Your task to perform on an android device: Search for asus zenbook on walmart.com, select the first entry, add it to the cart, then select checkout. Image 0: 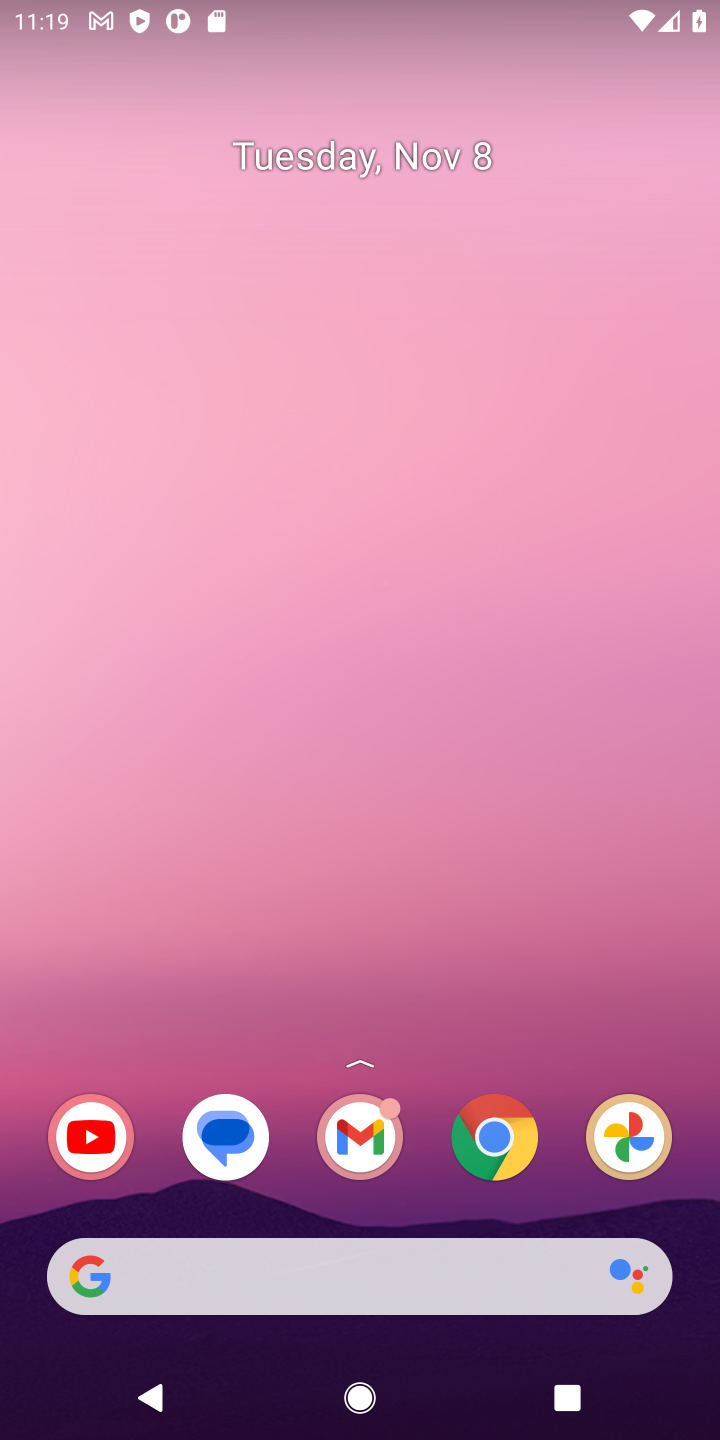
Step 0: click (501, 1143)
Your task to perform on an android device: Search for asus zenbook on walmart.com, select the first entry, add it to the cart, then select checkout. Image 1: 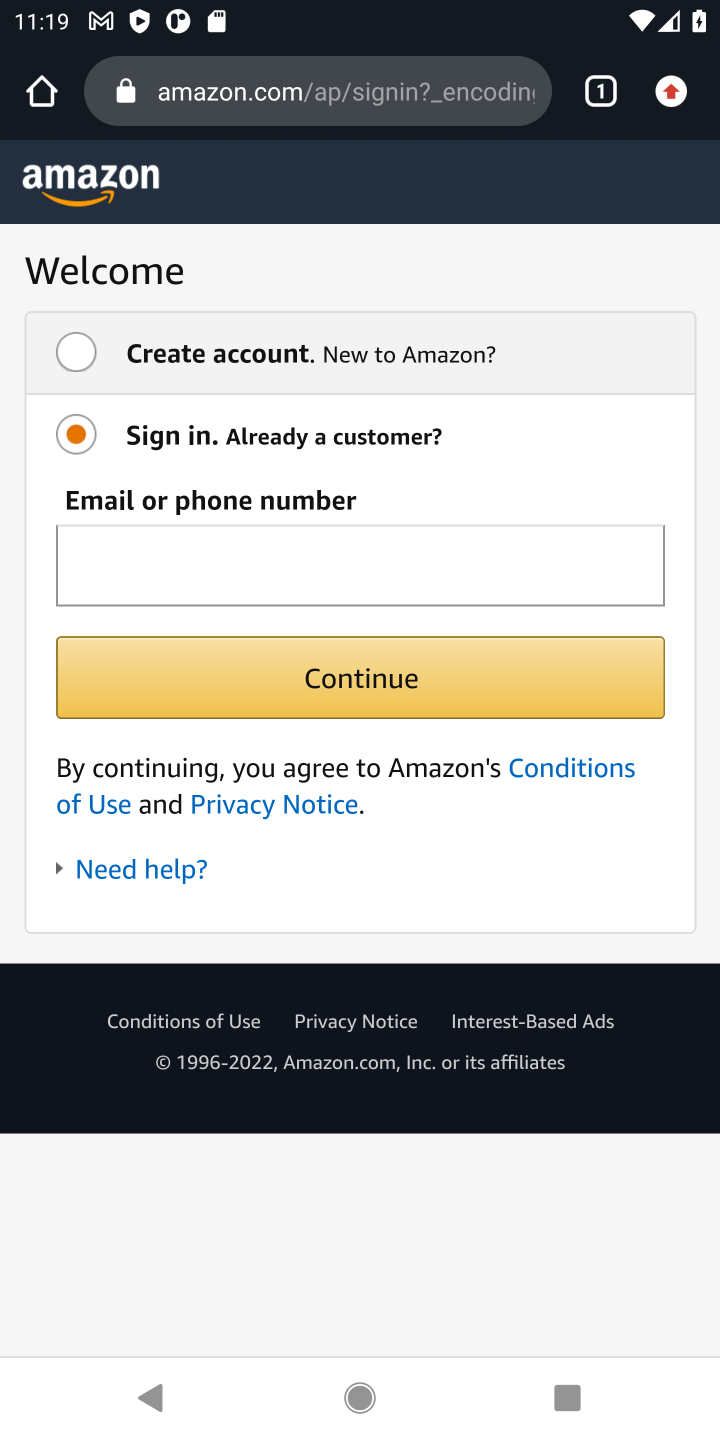
Step 1: click (401, 98)
Your task to perform on an android device: Search for asus zenbook on walmart.com, select the first entry, add it to the cart, then select checkout. Image 2: 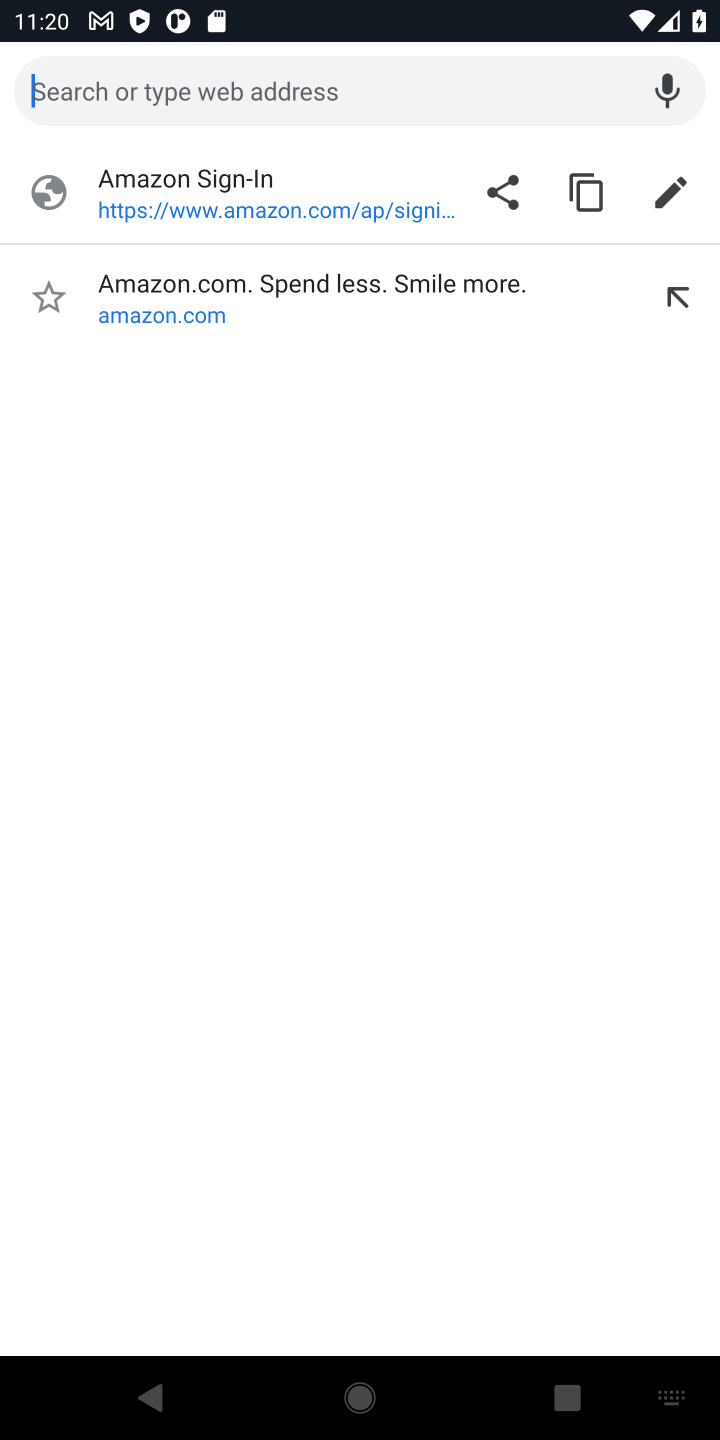
Step 2: type "walmart.com"
Your task to perform on an android device: Search for asus zenbook on walmart.com, select the first entry, add it to the cart, then select checkout. Image 3: 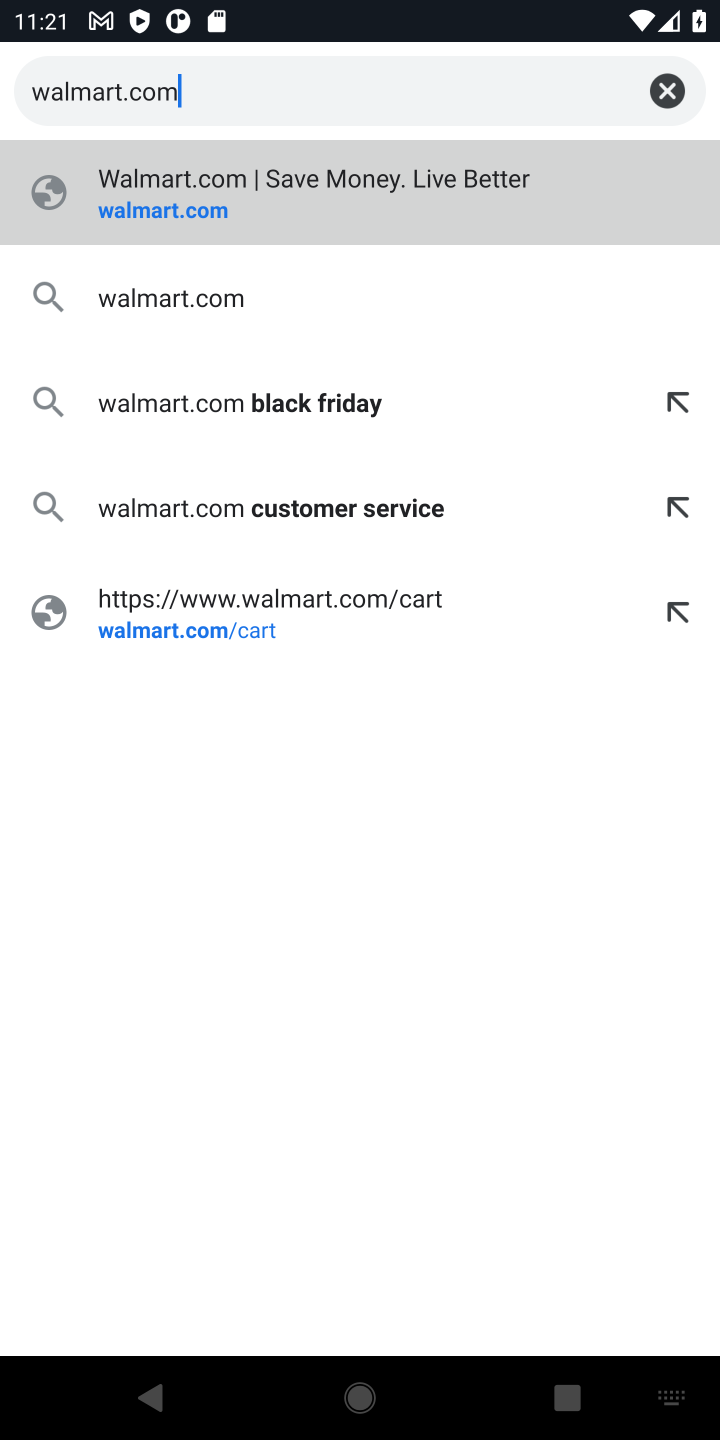
Step 3: click (196, 302)
Your task to perform on an android device: Search for asus zenbook on walmart.com, select the first entry, add it to the cart, then select checkout. Image 4: 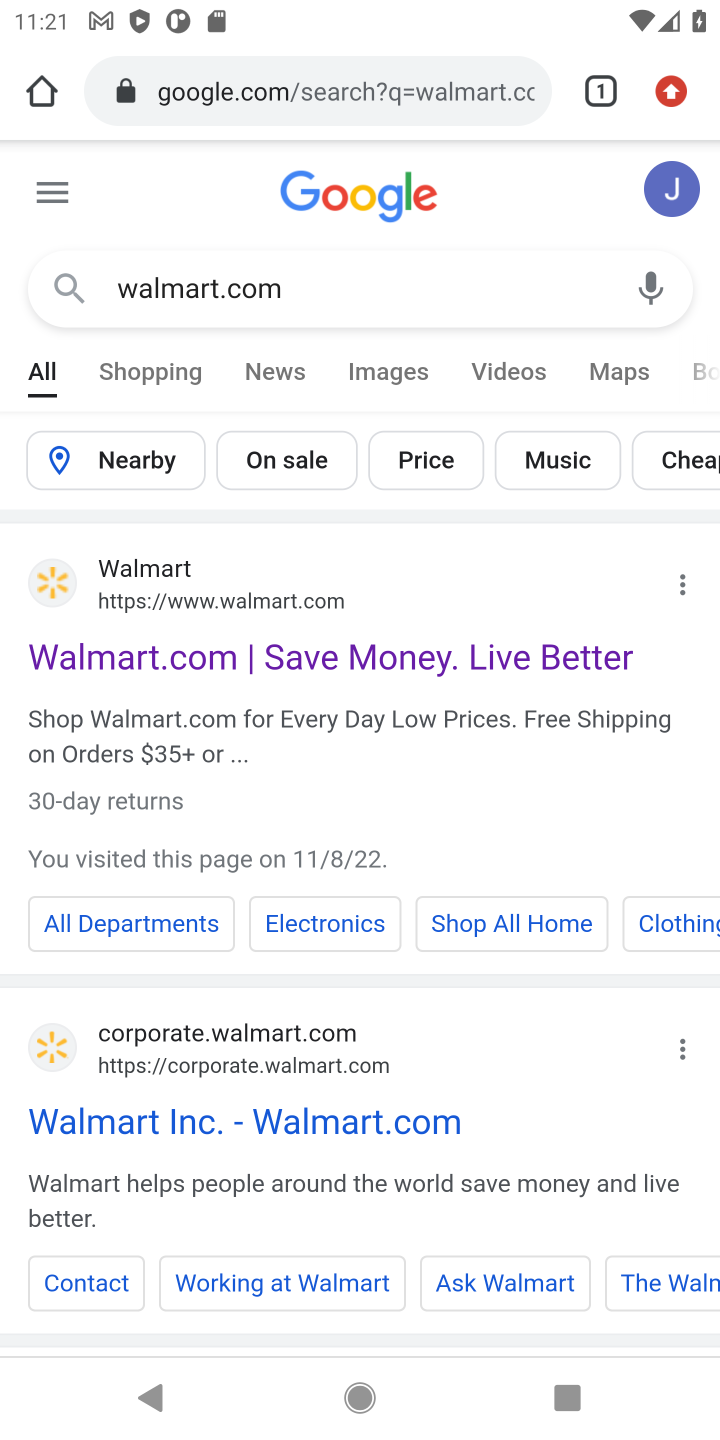
Step 4: click (179, 656)
Your task to perform on an android device: Search for asus zenbook on walmart.com, select the first entry, add it to the cart, then select checkout. Image 5: 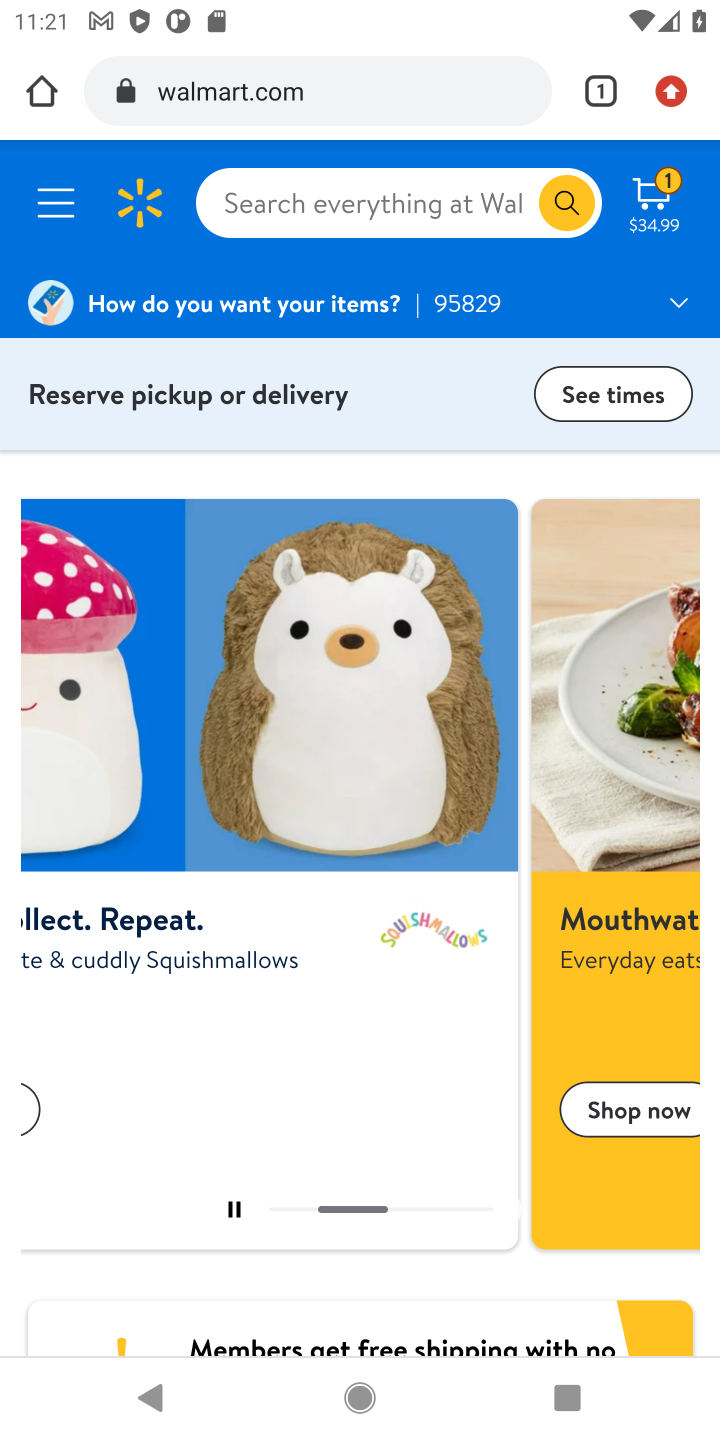
Step 5: click (400, 216)
Your task to perform on an android device: Search for asus zenbook on walmart.com, select the first entry, add it to the cart, then select checkout. Image 6: 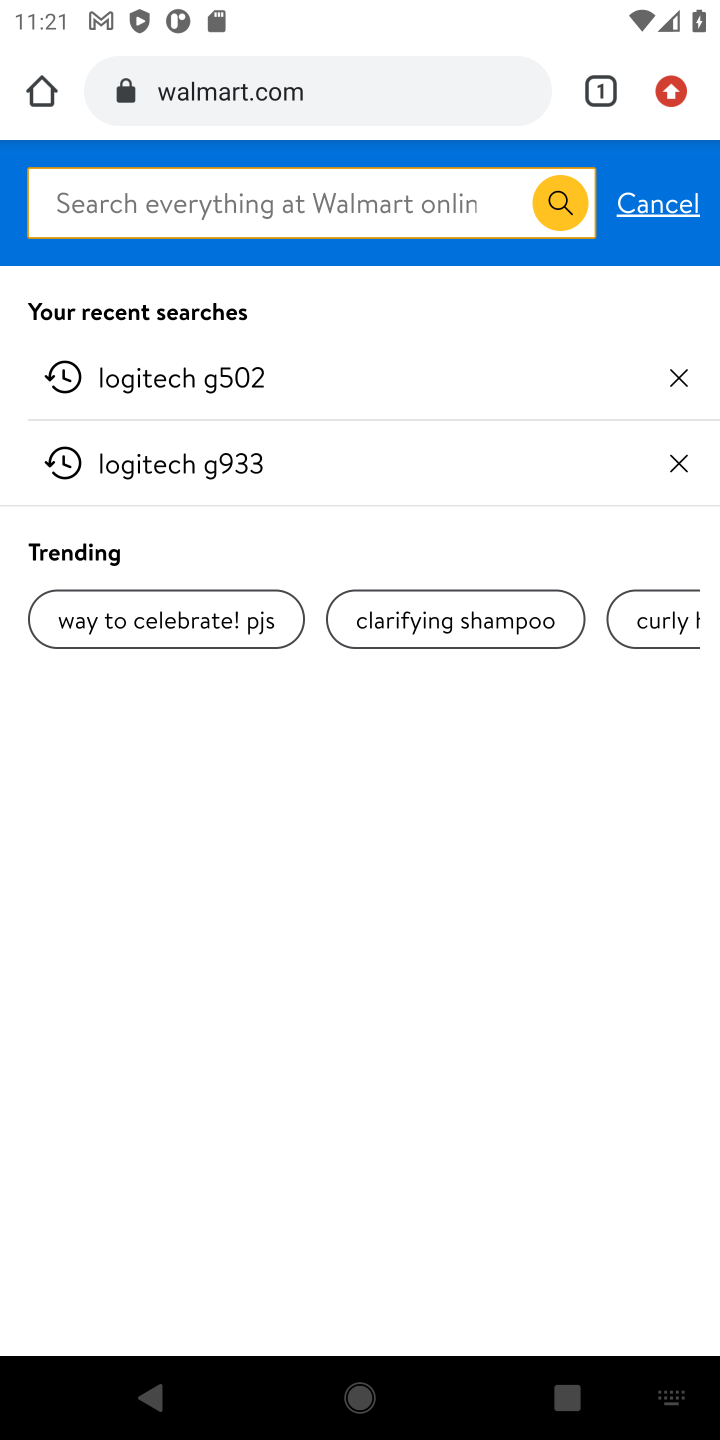
Step 6: type "asus zenbook"
Your task to perform on an android device: Search for asus zenbook on walmart.com, select the first entry, add it to the cart, then select checkout. Image 7: 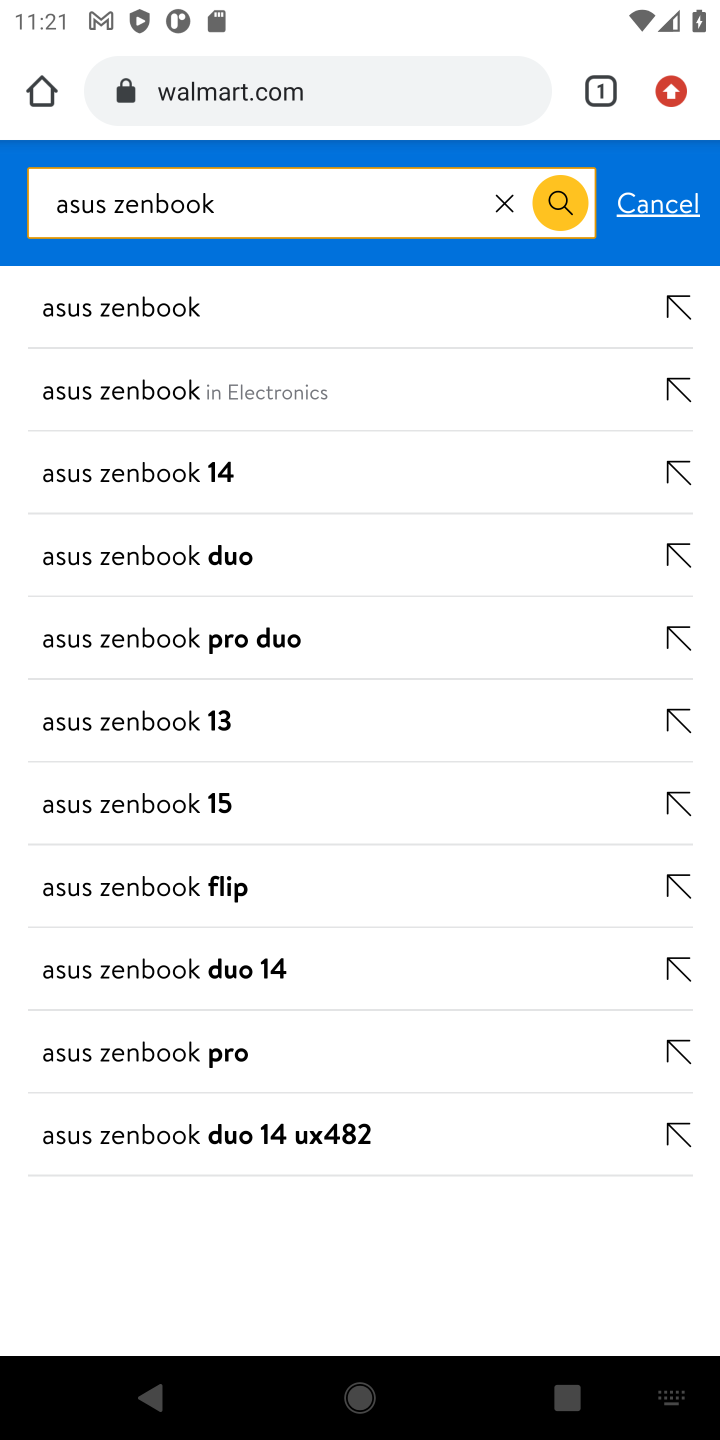
Step 7: click (206, 317)
Your task to perform on an android device: Search for asus zenbook on walmart.com, select the first entry, add it to the cart, then select checkout. Image 8: 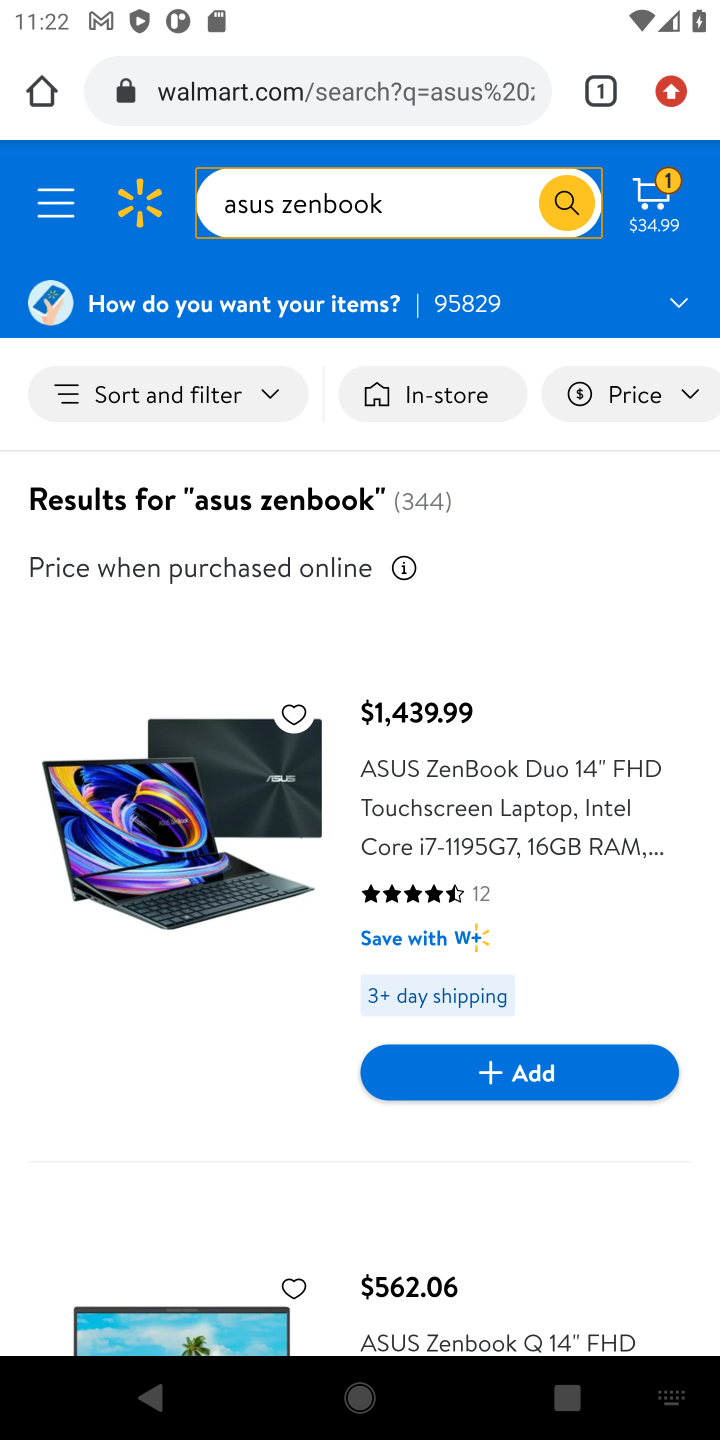
Step 8: click (493, 1079)
Your task to perform on an android device: Search for asus zenbook on walmart.com, select the first entry, add it to the cart, then select checkout. Image 9: 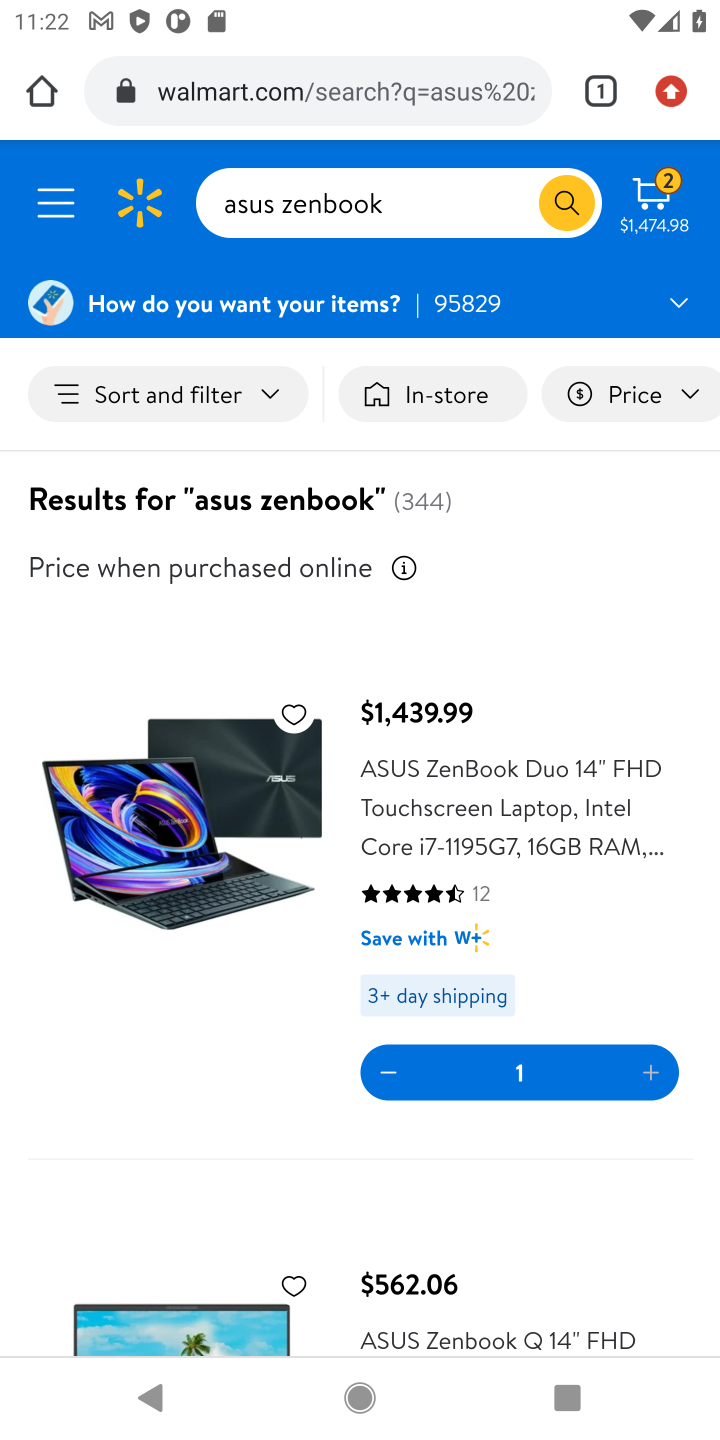
Step 9: click (649, 194)
Your task to perform on an android device: Search for asus zenbook on walmart.com, select the first entry, add it to the cart, then select checkout. Image 10: 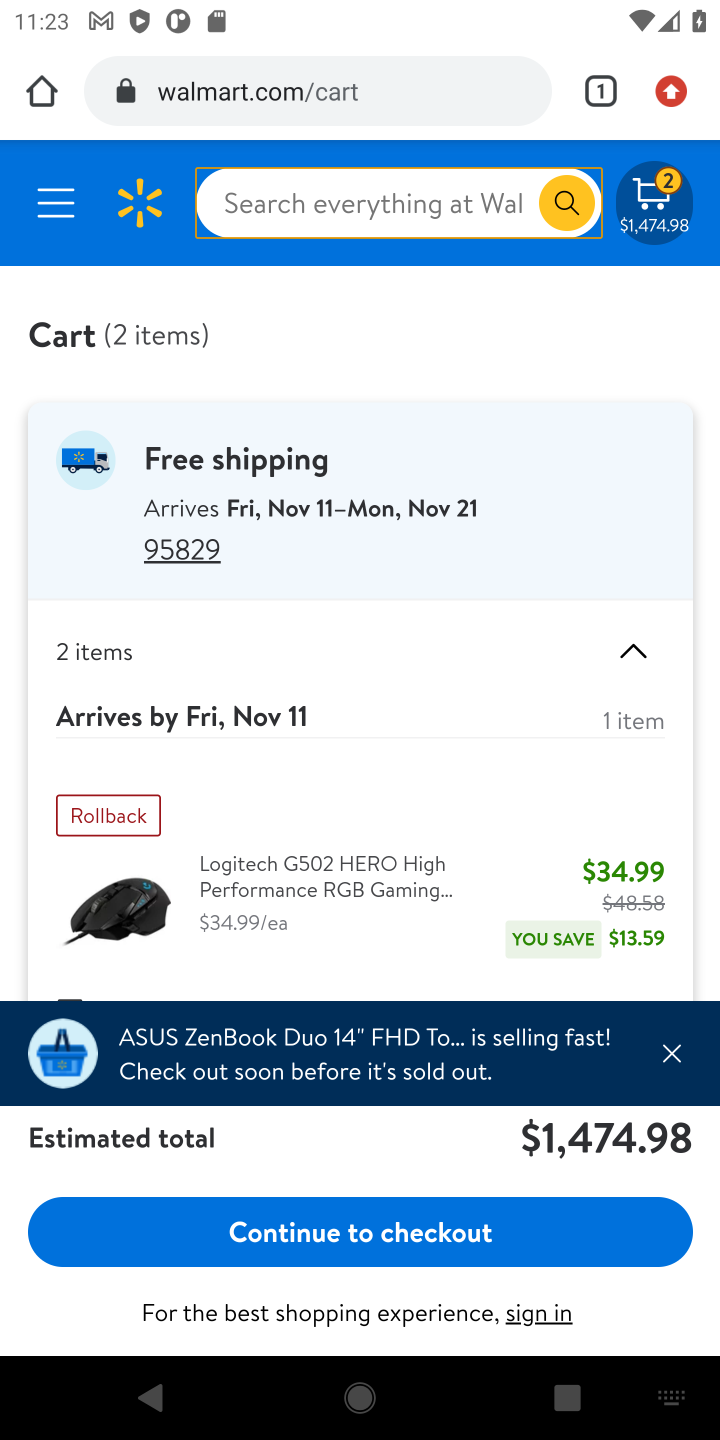
Step 10: click (412, 1234)
Your task to perform on an android device: Search for asus zenbook on walmart.com, select the first entry, add it to the cart, then select checkout. Image 11: 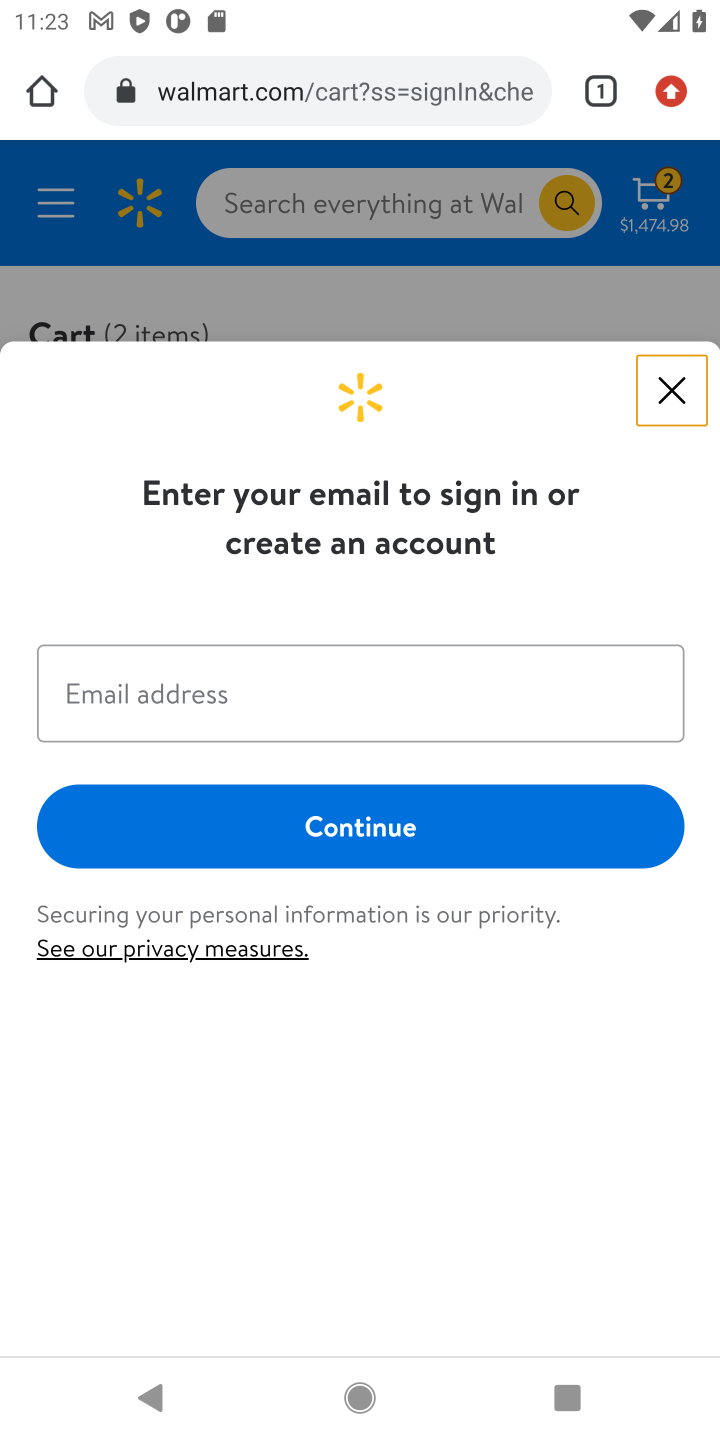
Step 11: task complete